Your task to perform on an android device: What is the recent news? Image 0: 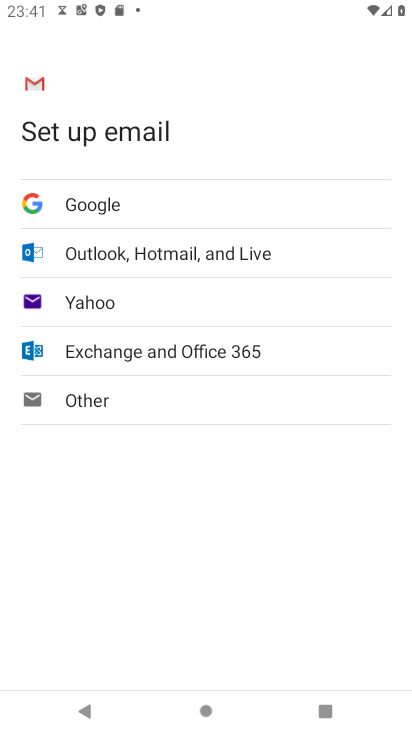
Step 0: press home button
Your task to perform on an android device: What is the recent news? Image 1: 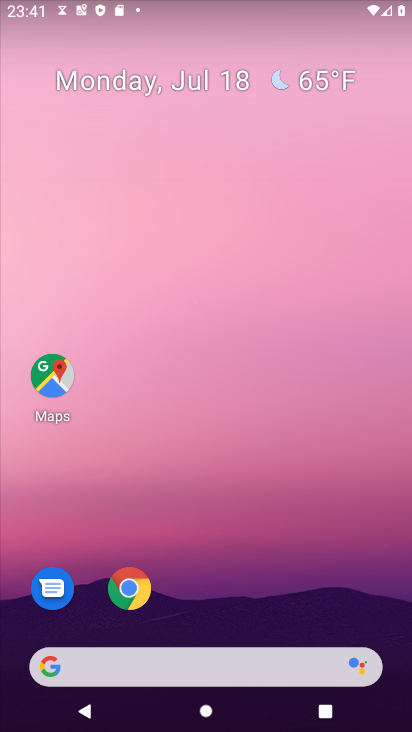
Step 1: click (51, 668)
Your task to perform on an android device: What is the recent news? Image 2: 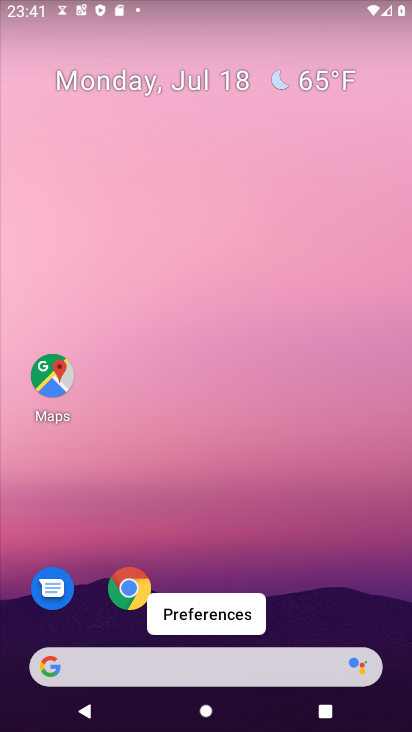
Step 2: click (47, 664)
Your task to perform on an android device: What is the recent news? Image 3: 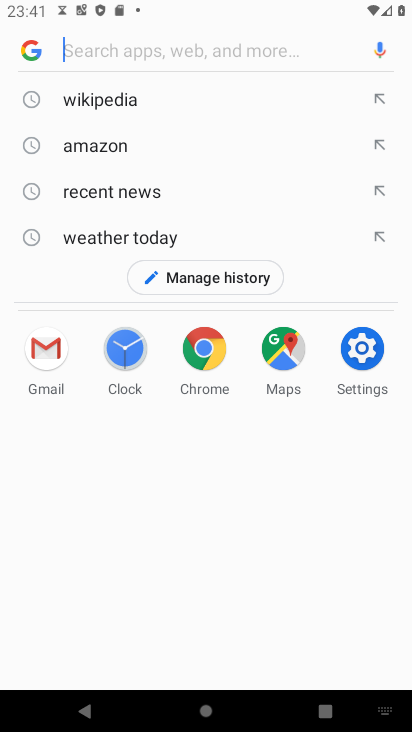
Step 3: click (116, 189)
Your task to perform on an android device: What is the recent news? Image 4: 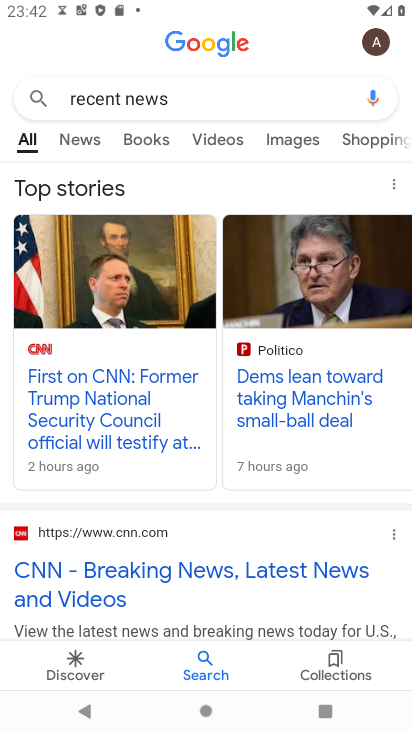
Step 4: task complete